Your task to perform on an android device: Open calendar and show me the third week of next month Image 0: 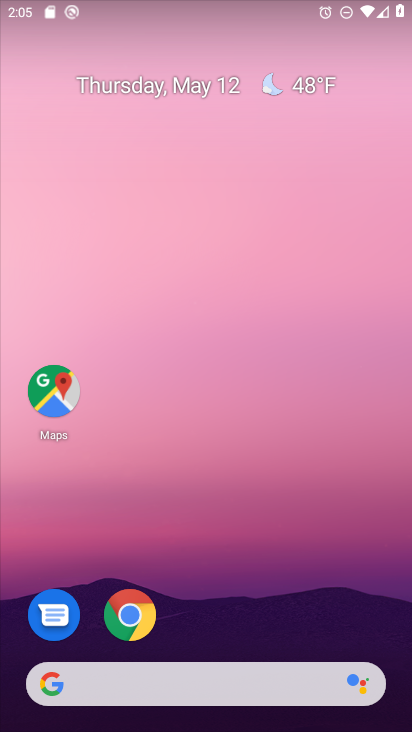
Step 0: drag from (315, 685) to (333, 75)
Your task to perform on an android device: Open calendar and show me the third week of next month Image 1: 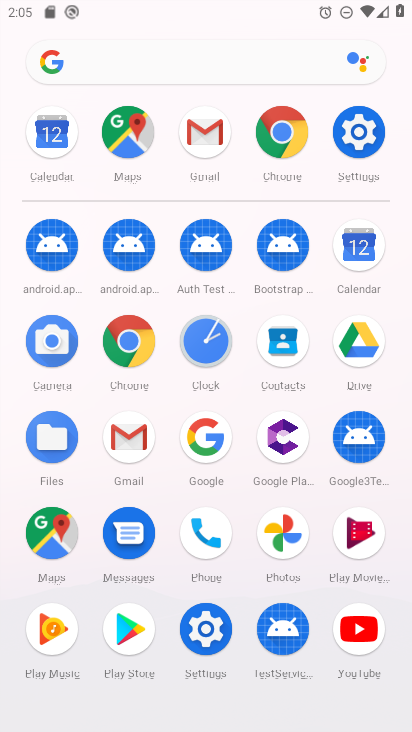
Step 1: click (336, 250)
Your task to perform on an android device: Open calendar and show me the third week of next month Image 2: 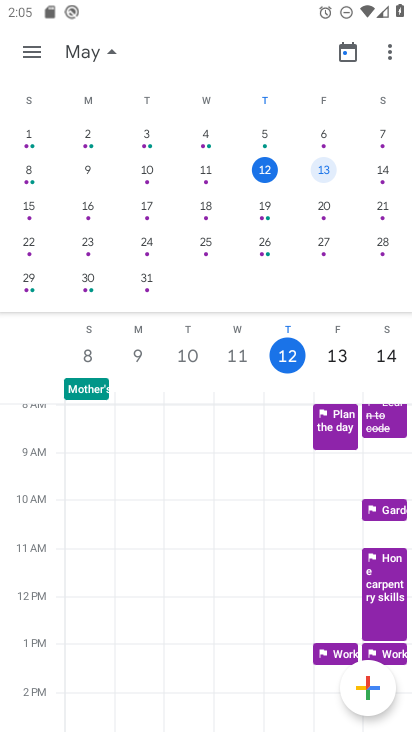
Step 2: click (110, 46)
Your task to perform on an android device: Open calendar and show me the third week of next month Image 3: 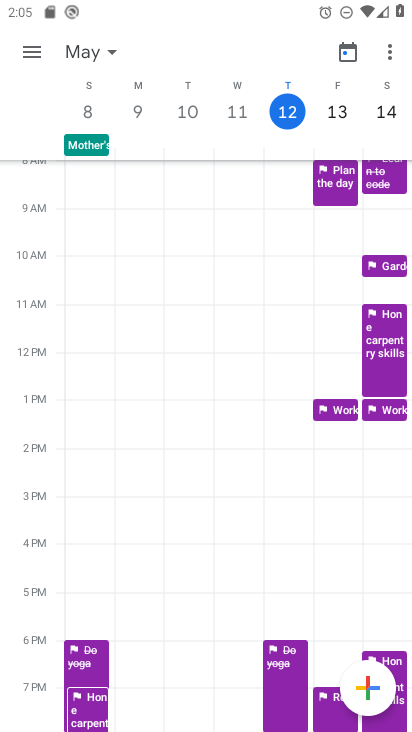
Step 3: click (110, 46)
Your task to perform on an android device: Open calendar and show me the third week of next month Image 4: 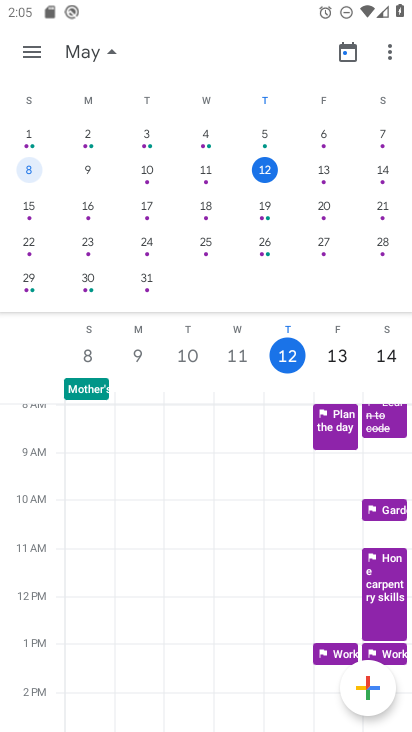
Step 4: drag from (368, 207) to (63, 258)
Your task to perform on an android device: Open calendar and show me the third week of next month Image 5: 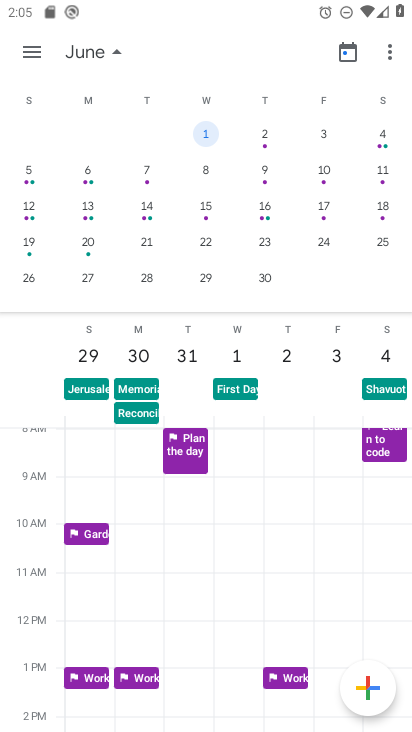
Step 5: click (267, 212)
Your task to perform on an android device: Open calendar and show me the third week of next month Image 6: 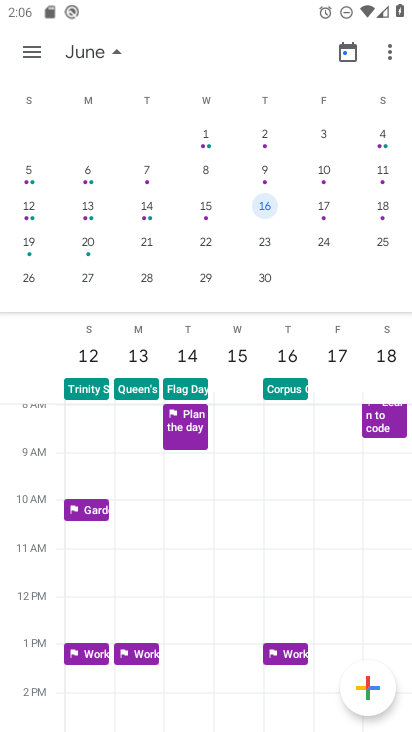
Step 6: click (266, 200)
Your task to perform on an android device: Open calendar and show me the third week of next month Image 7: 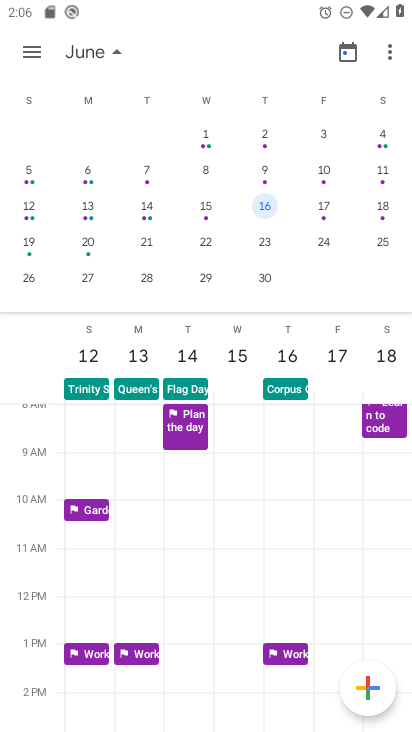
Step 7: task complete